Your task to perform on an android device: clear history in the chrome app Image 0: 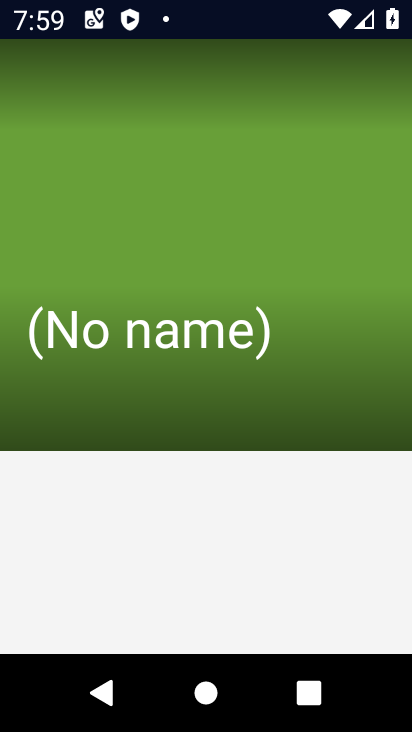
Step 0: drag from (394, 534) to (314, 96)
Your task to perform on an android device: clear history in the chrome app Image 1: 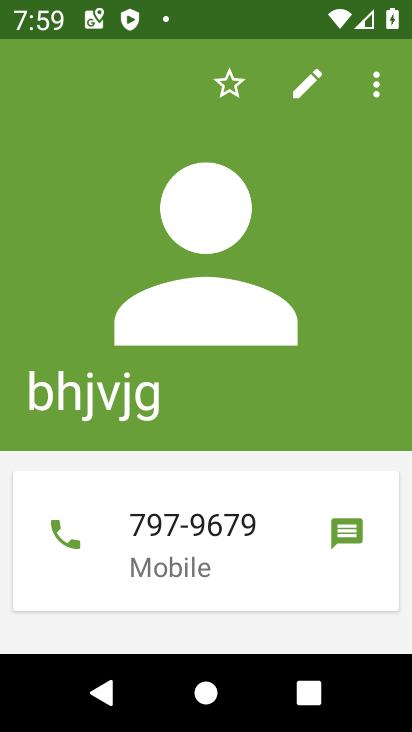
Step 1: press home button
Your task to perform on an android device: clear history in the chrome app Image 2: 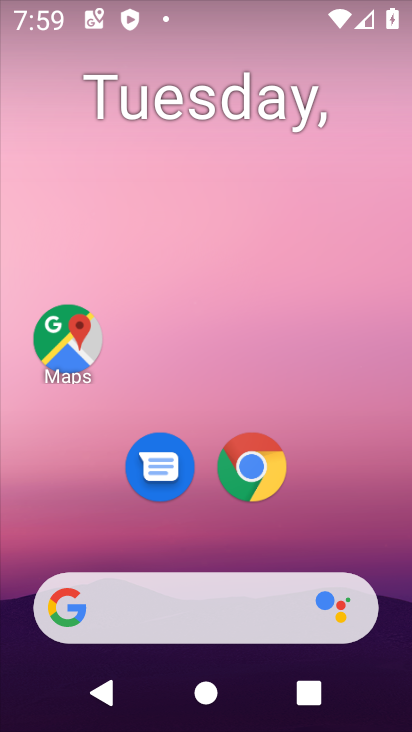
Step 2: drag from (383, 529) to (266, 127)
Your task to perform on an android device: clear history in the chrome app Image 3: 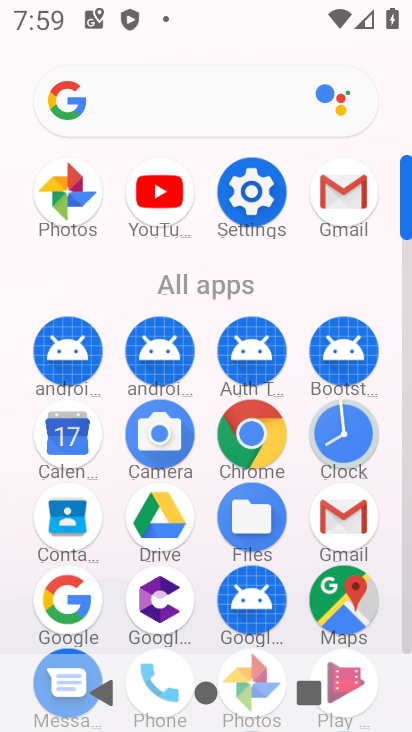
Step 3: click (267, 427)
Your task to perform on an android device: clear history in the chrome app Image 4: 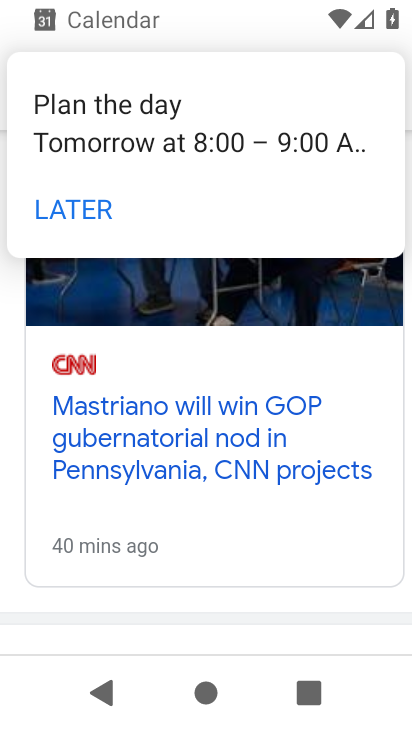
Step 4: click (70, 206)
Your task to perform on an android device: clear history in the chrome app Image 5: 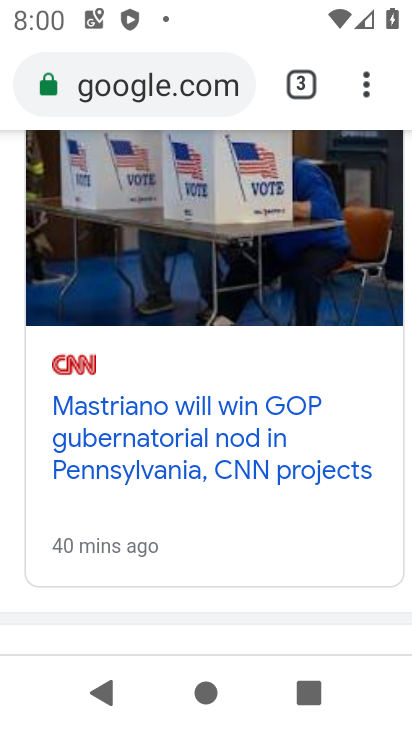
Step 5: click (356, 87)
Your task to perform on an android device: clear history in the chrome app Image 6: 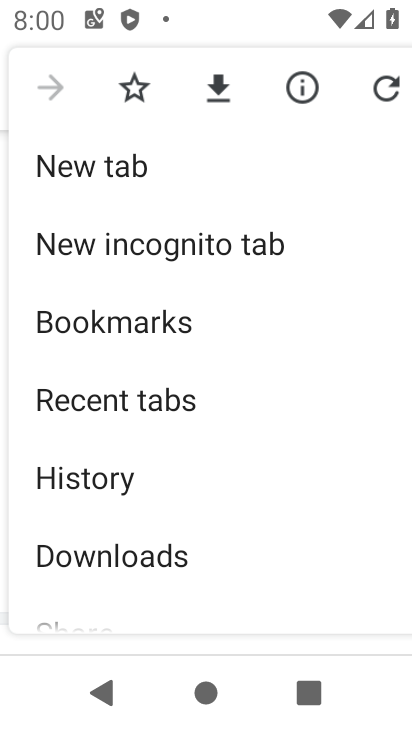
Step 6: click (172, 490)
Your task to perform on an android device: clear history in the chrome app Image 7: 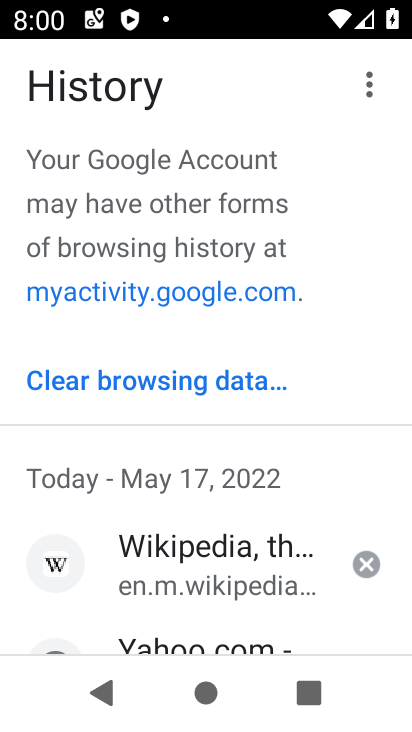
Step 7: click (204, 373)
Your task to perform on an android device: clear history in the chrome app Image 8: 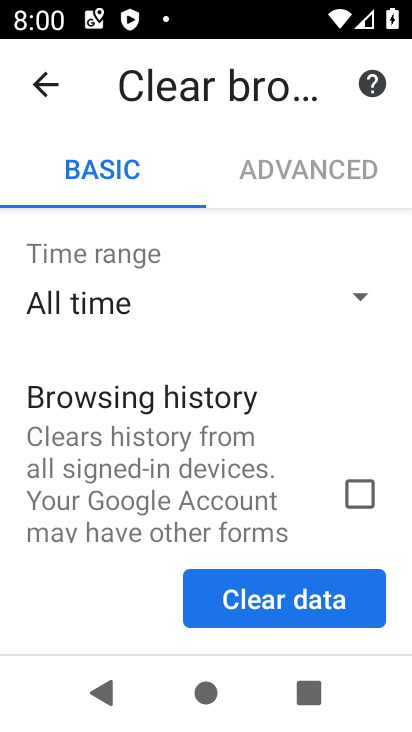
Step 8: click (375, 498)
Your task to perform on an android device: clear history in the chrome app Image 9: 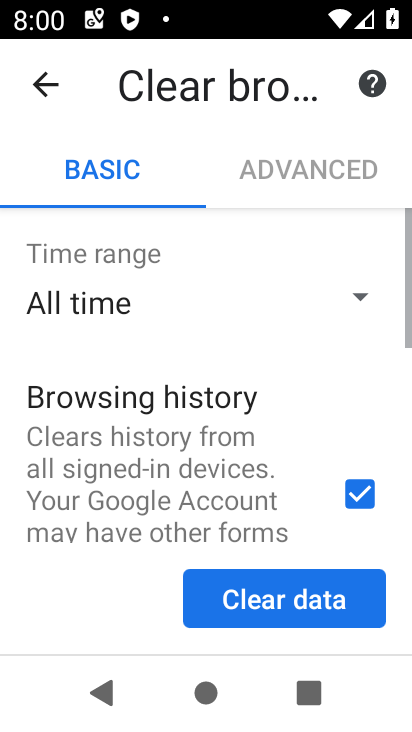
Step 9: click (339, 600)
Your task to perform on an android device: clear history in the chrome app Image 10: 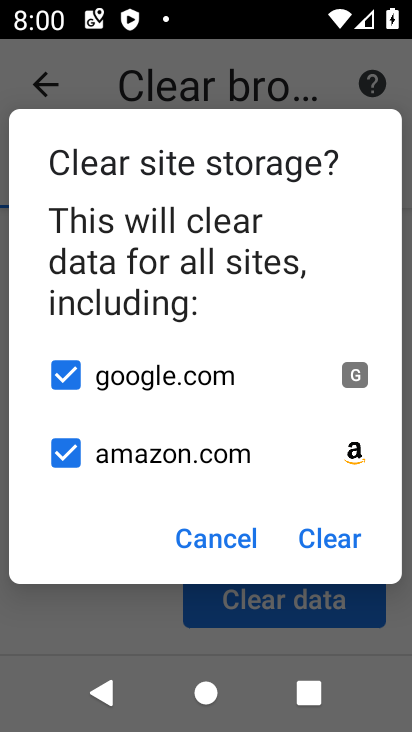
Step 10: click (338, 549)
Your task to perform on an android device: clear history in the chrome app Image 11: 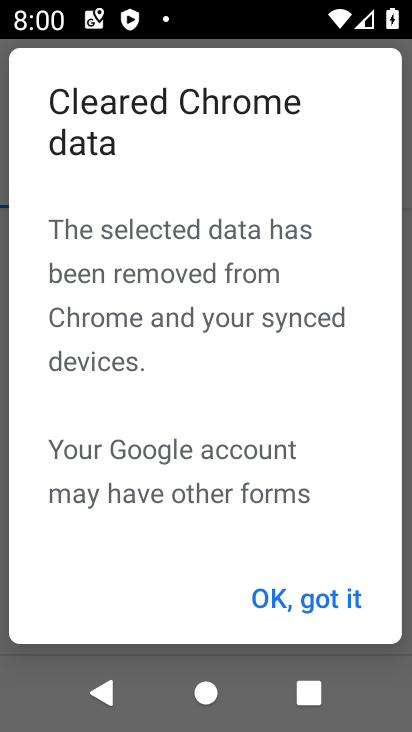
Step 11: click (339, 600)
Your task to perform on an android device: clear history in the chrome app Image 12: 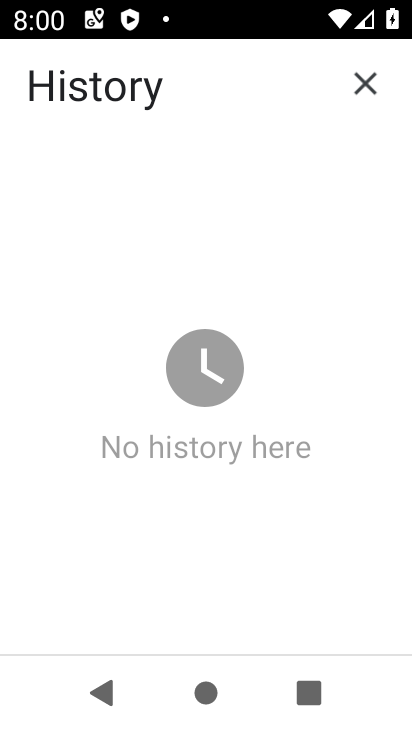
Step 12: task complete